Your task to perform on an android device: toggle notification dots Image 0: 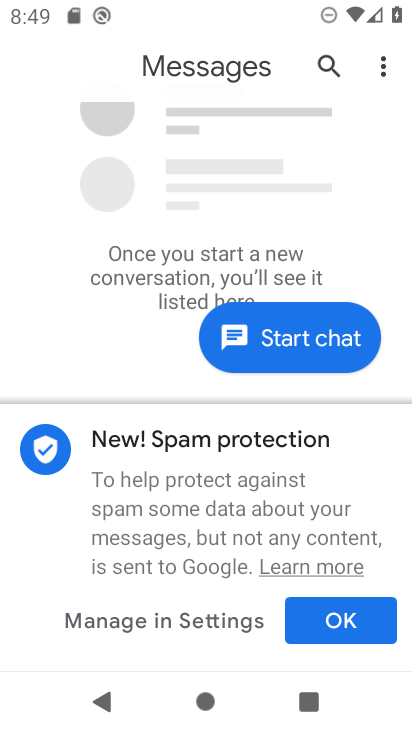
Step 0: press home button
Your task to perform on an android device: toggle notification dots Image 1: 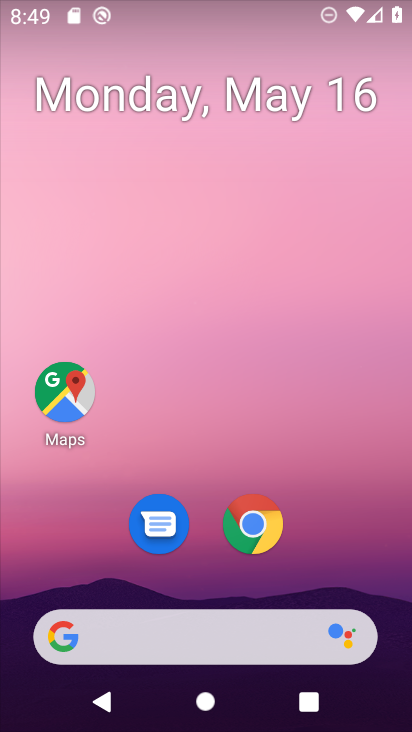
Step 1: drag from (321, 558) to (301, 63)
Your task to perform on an android device: toggle notification dots Image 2: 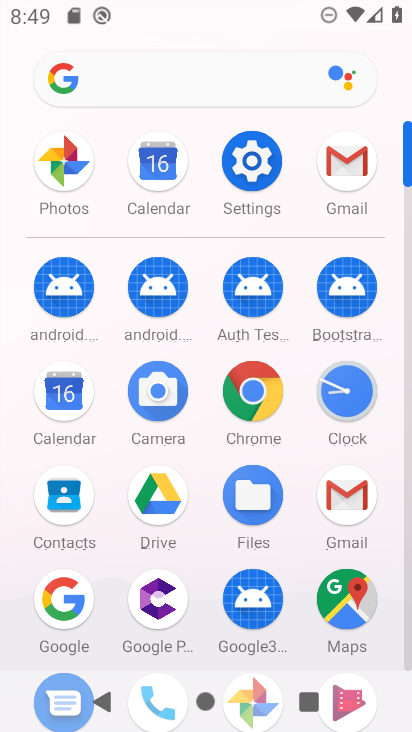
Step 2: click (259, 156)
Your task to perform on an android device: toggle notification dots Image 3: 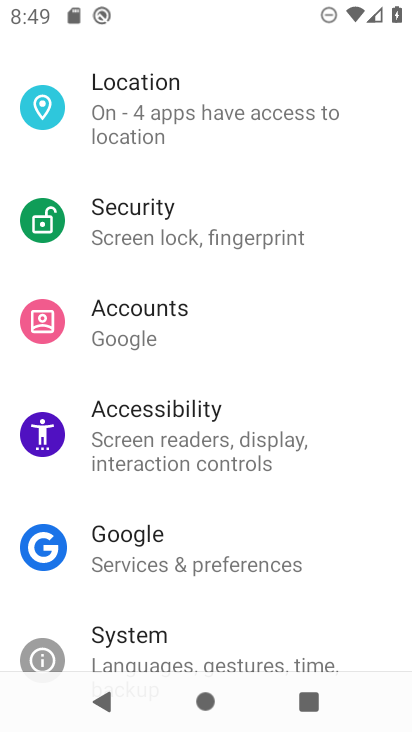
Step 3: drag from (259, 159) to (256, 564)
Your task to perform on an android device: toggle notification dots Image 4: 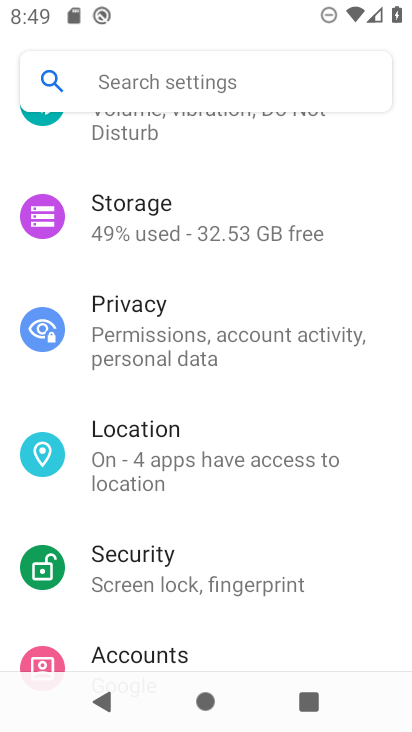
Step 4: drag from (230, 191) to (211, 625)
Your task to perform on an android device: toggle notification dots Image 5: 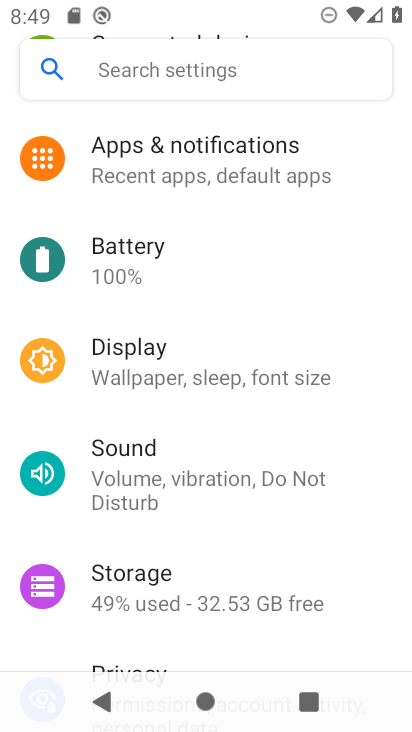
Step 5: click (237, 169)
Your task to perform on an android device: toggle notification dots Image 6: 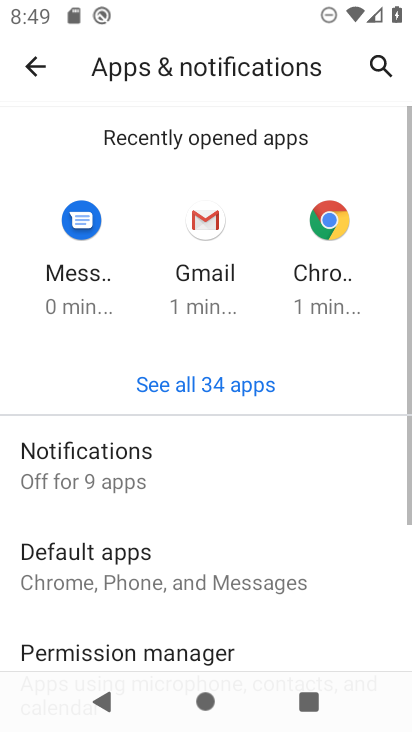
Step 6: click (144, 442)
Your task to perform on an android device: toggle notification dots Image 7: 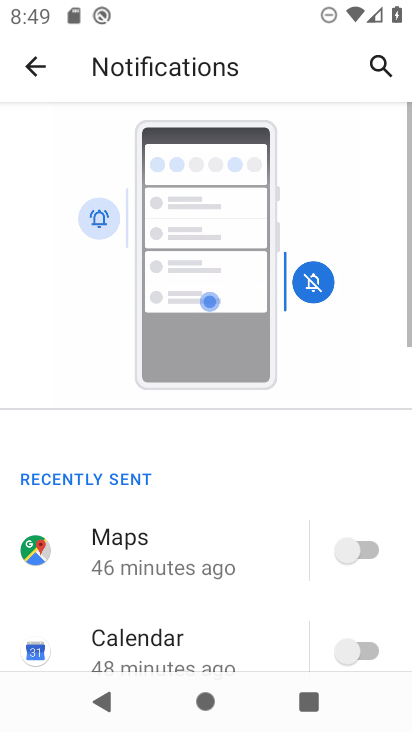
Step 7: drag from (204, 511) to (201, 26)
Your task to perform on an android device: toggle notification dots Image 8: 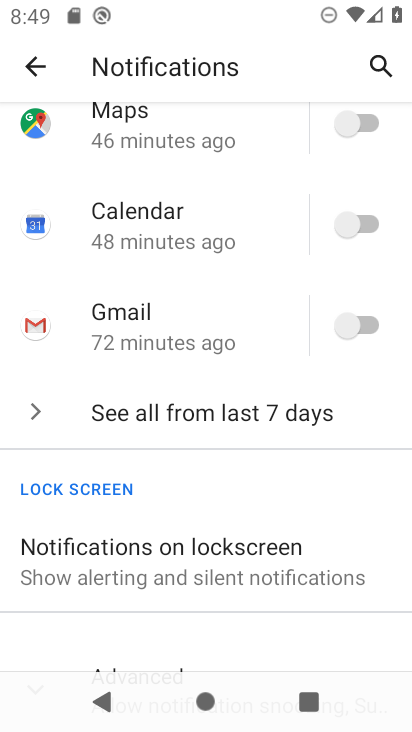
Step 8: drag from (191, 473) to (179, 102)
Your task to perform on an android device: toggle notification dots Image 9: 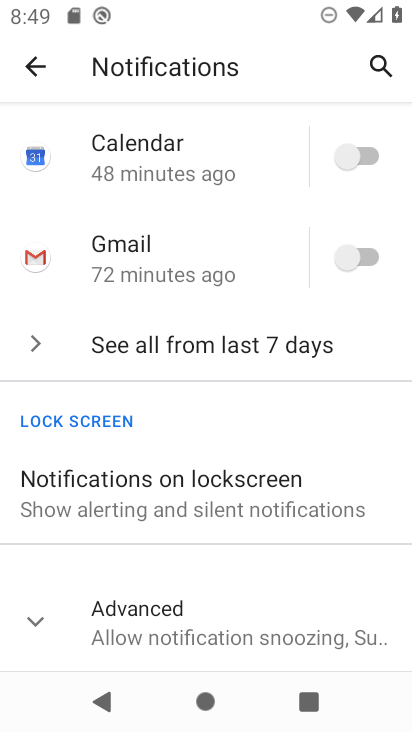
Step 9: click (29, 621)
Your task to perform on an android device: toggle notification dots Image 10: 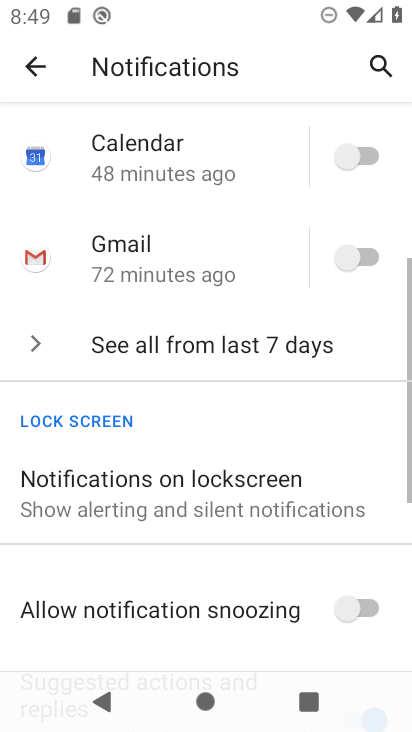
Step 10: drag from (192, 444) to (226, 92)
Your task to perform on an android device: toggle notification dots Image 11: 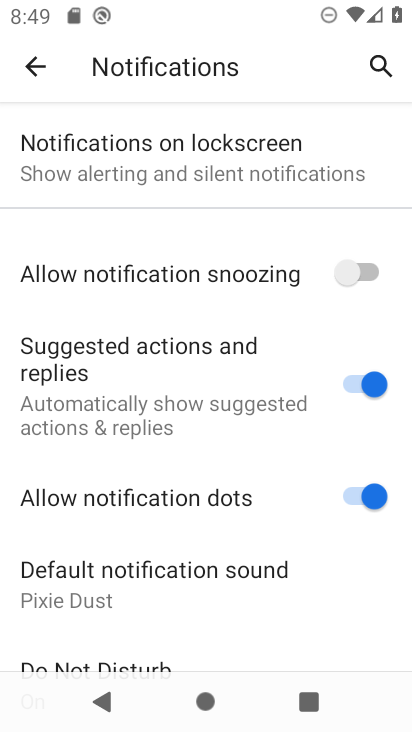
Step 11: click (358, 498)
Your task to perform on an android device: toggle notification dots Image 12: 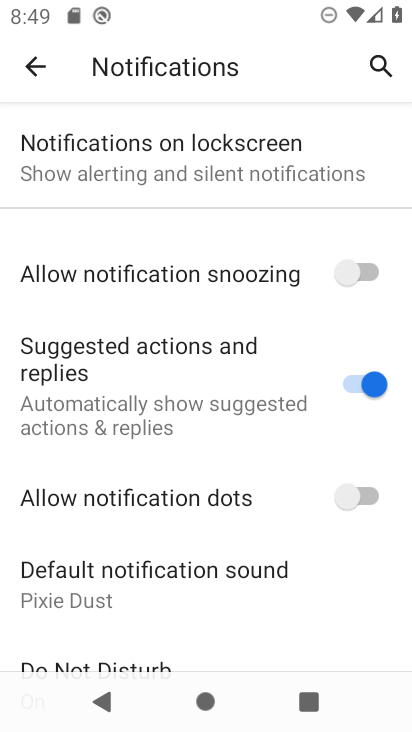
Step 12: task complete